Your task to perform on an android device: delete browsing data in the chrome app Image 0: 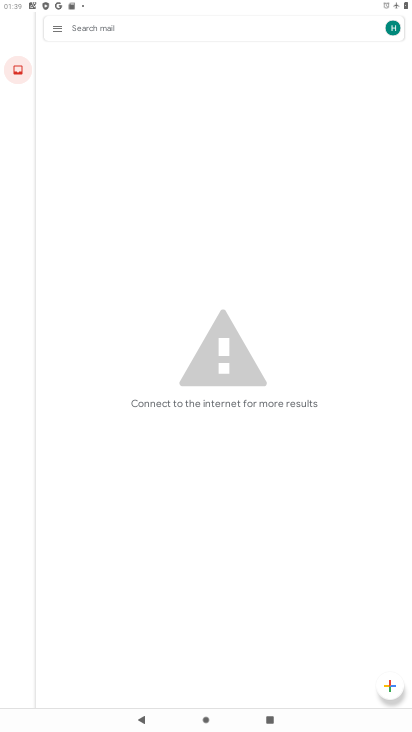
Step 0: press home button
Your task to perform on an android device: delete browsing data in the chrome app Image 1: 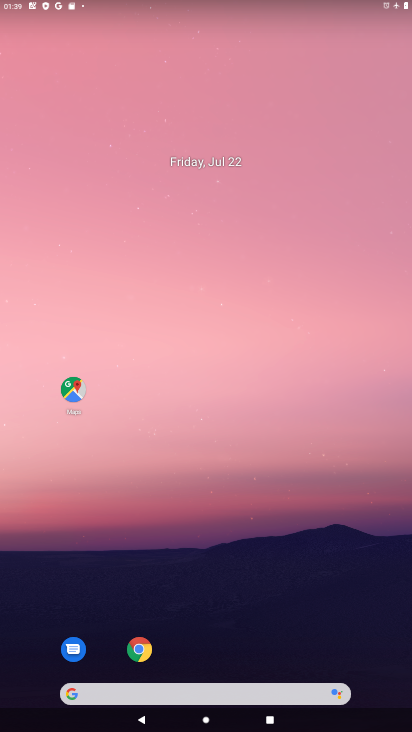
Step 1: drag from (272, 512) to (200, 90)
Your task to perform on an android device: delete browsing data in the chrome app Image 2: 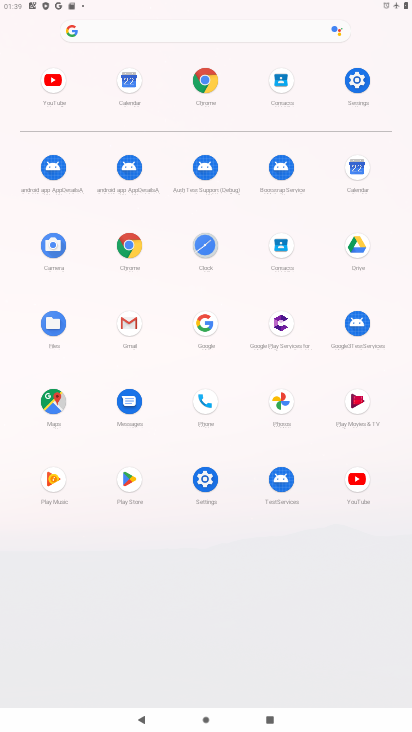
Step 2: click (206, 75)
Your task to perform on an android device: delete browsing data in the chrome app Image 3: 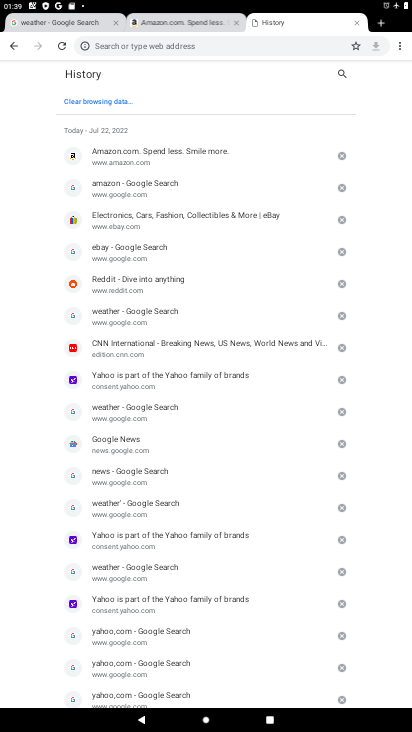
Step 3: drag from (400, 48) to (130, 110)
Your task to perform on an android device: delete browsing data in the chrome app Image 4: 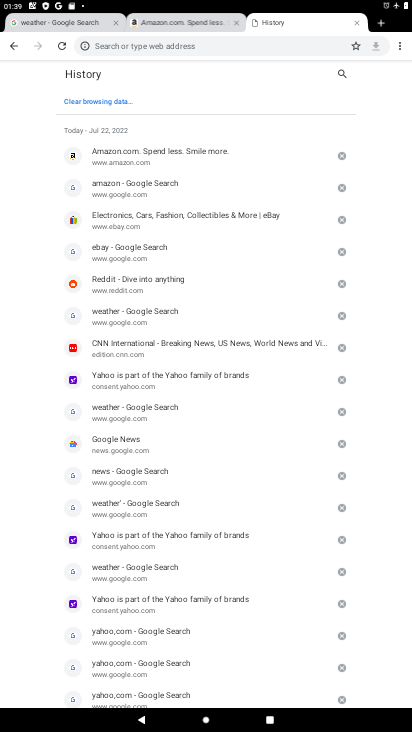
Step 4: click (126, 108)
Your task to perform on an android device: delete browsing data in the chrome app Image 5: 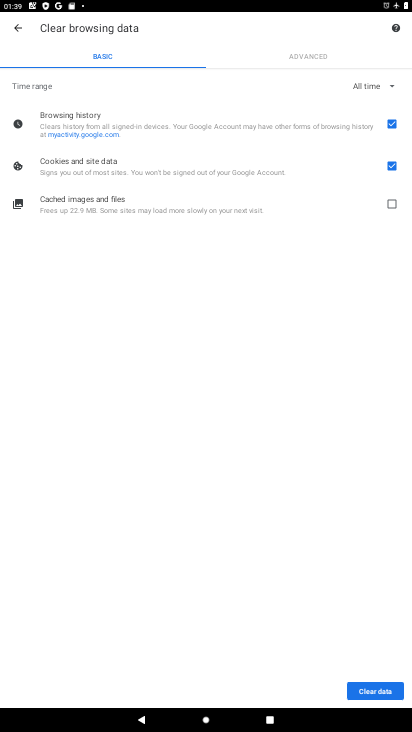
Step 5: click (387, 203)
Your task to perform on an android device: delete browsing data in the chrome app Image 6: 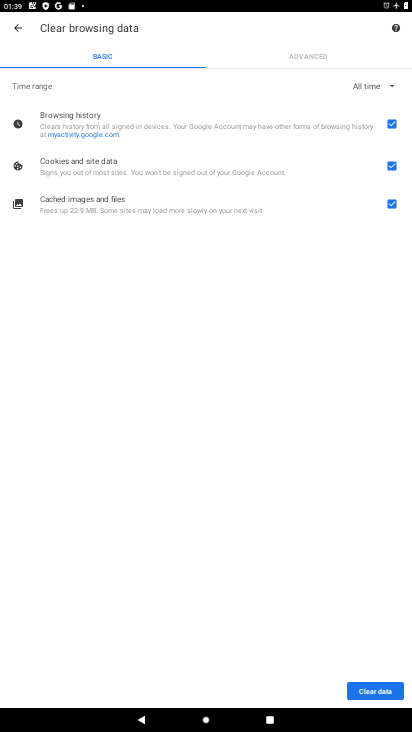
Step 6: click (377, 690)
Your task to perform on an android device: delete browsing data in the chrome app Image 7: 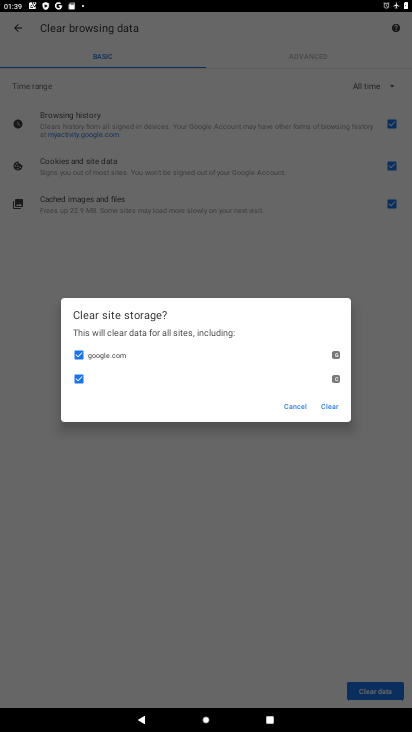
Step 7: click (339, 409)
Your task to perform on an android device: delete browsing data in the chrome app Image 8: 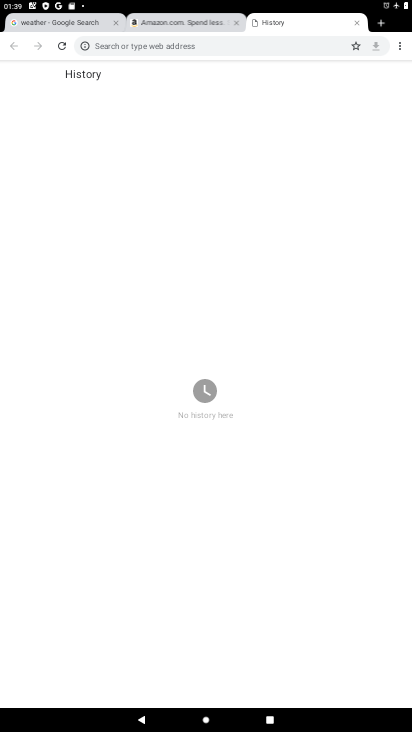
Step 8: task complete